Your task to perform on an android device: install app "Adobe Acrobat Reader: Edit PDF" Image 0: 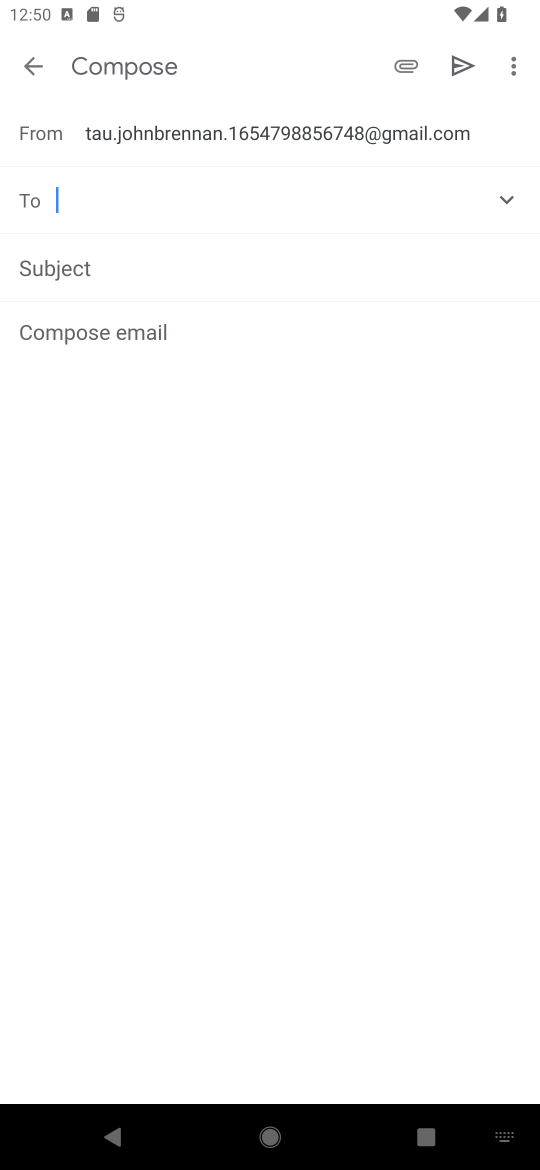
Step 0: press home button
Your task to perform on an android device: install app "Adobe Acrobat Reader: Edit PDF" Image 1: 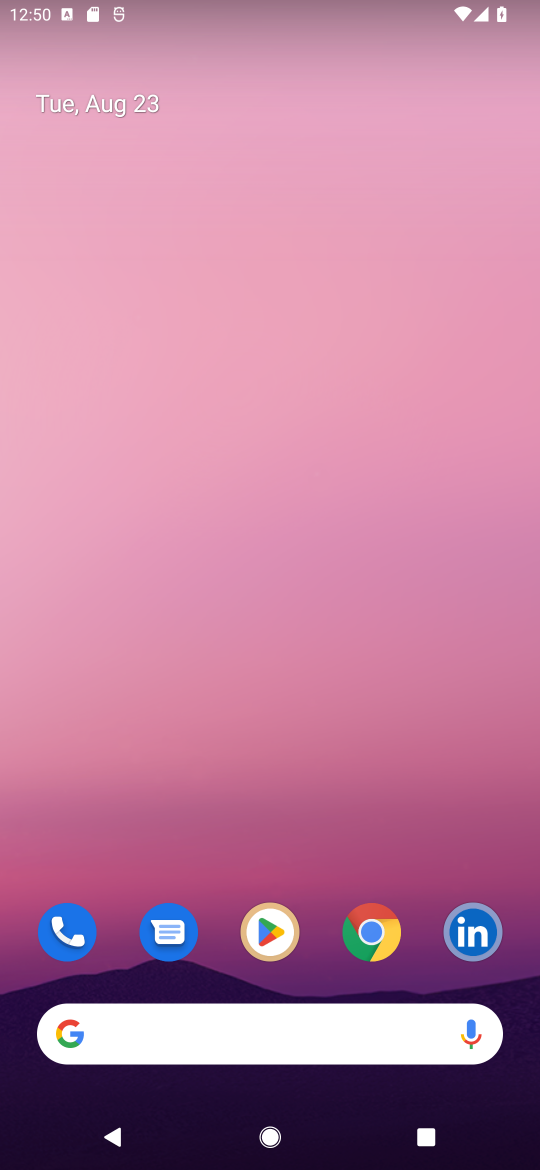
Step 1: click (267, 923)
Your task to perform on an android device: install app "Adobe Acrobat Reader: Edit PDF" Image 2: 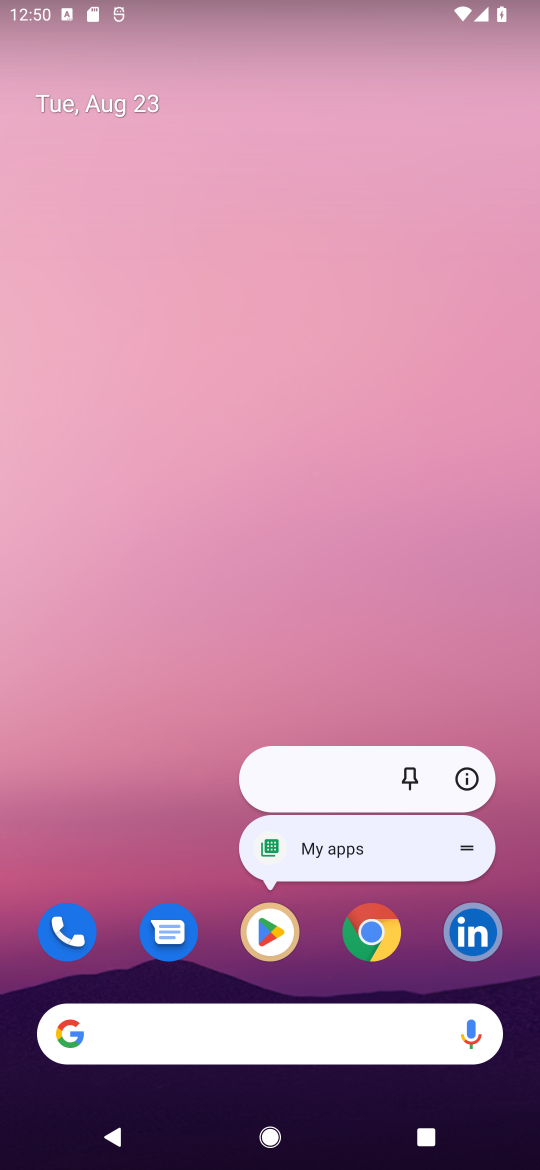
Step 2: click (276, 947)
Your task to perform on an android device: install app "Adobe Acrobat Reader: Edit PDF" Image 3: 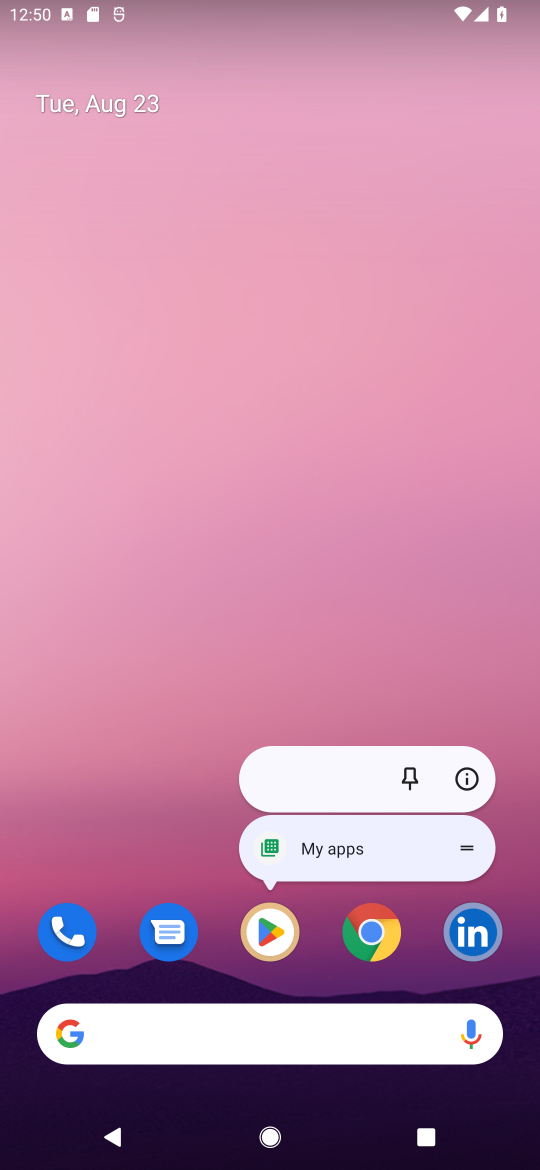
Step 3: click (280, 934)
Your task to perform on an android device: install app "Adobe Acrobat Reader: Edit PDF" Image 4: 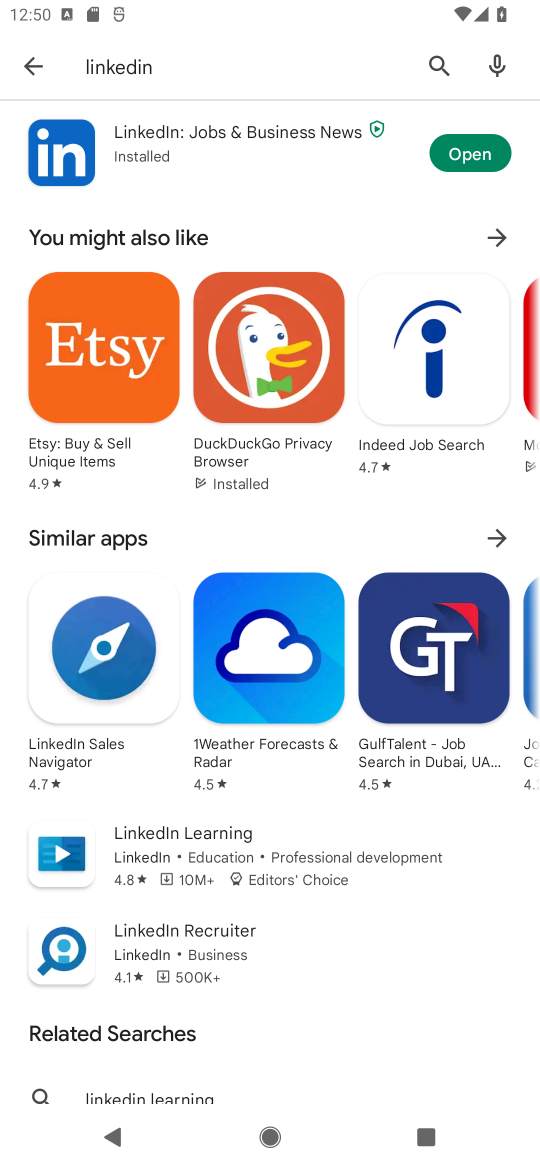
Step 4: click (443, 57)
Your task to perform on an android device: install app "Adobe Acrobat Reader: Edit PDF" Image 5: 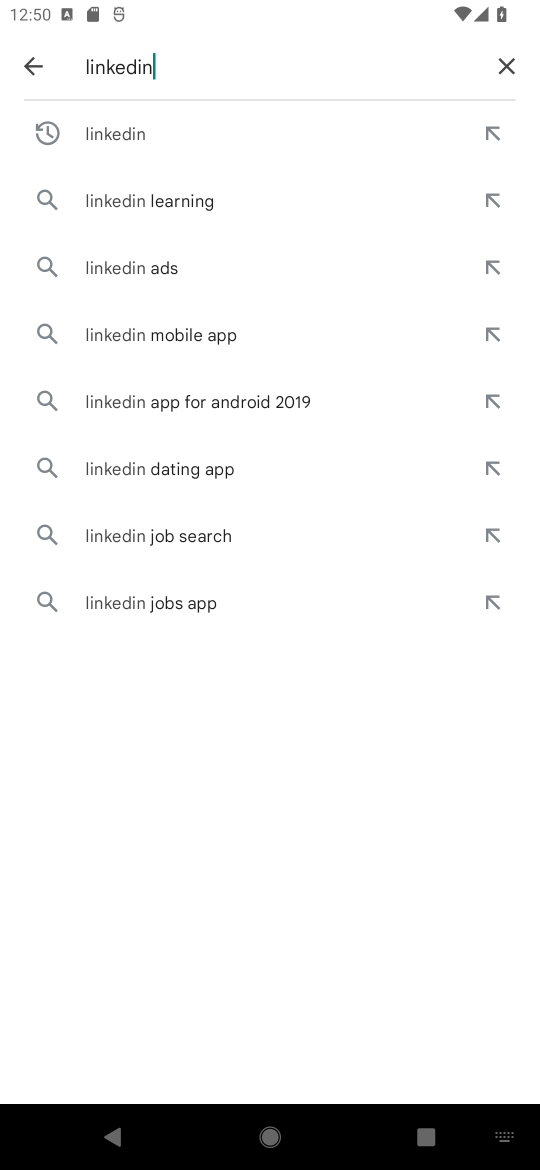
Step 5: click (500, 64)
Your task to perform on an android device: install app "Adobe Acrobat Reader: Edit PDF" Image 6: 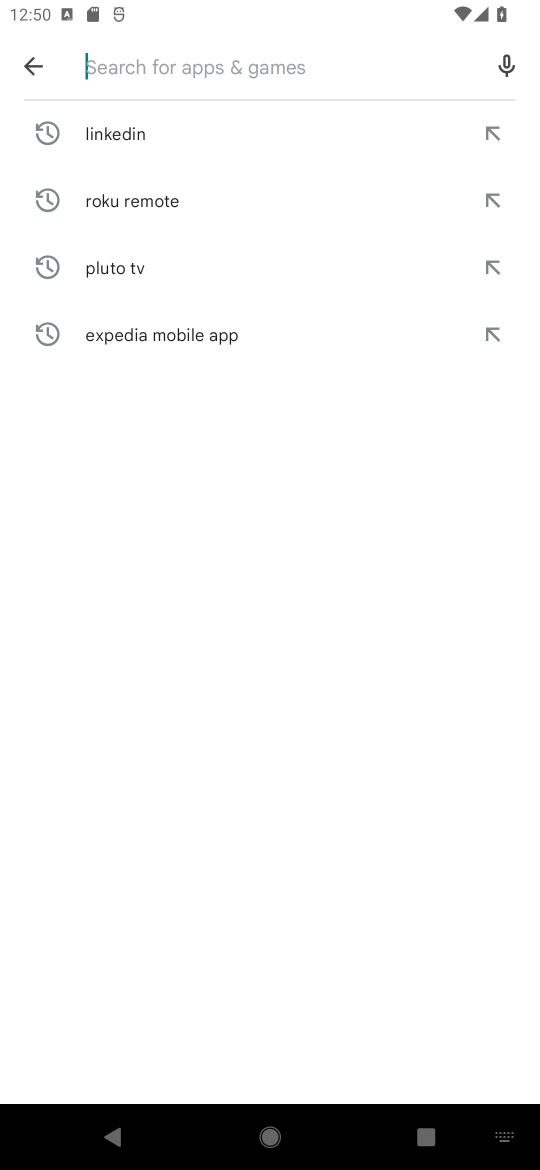
Step 6: click (126, 61)
Your task to perform on an android device: install app "Adobe Acrobat Reader: Edit PDF" Image 7: 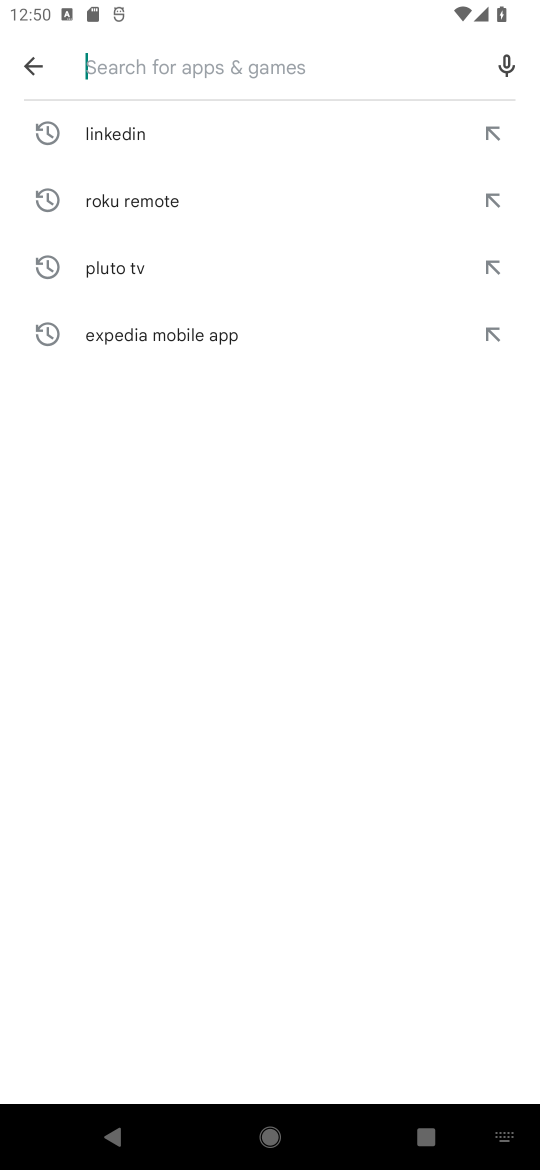
Step 7: type "Adobe Acrobat Reade"
Your task to perform on an android device: install app "Adobe Acrobat Reader: Edit PDF" Image 8: 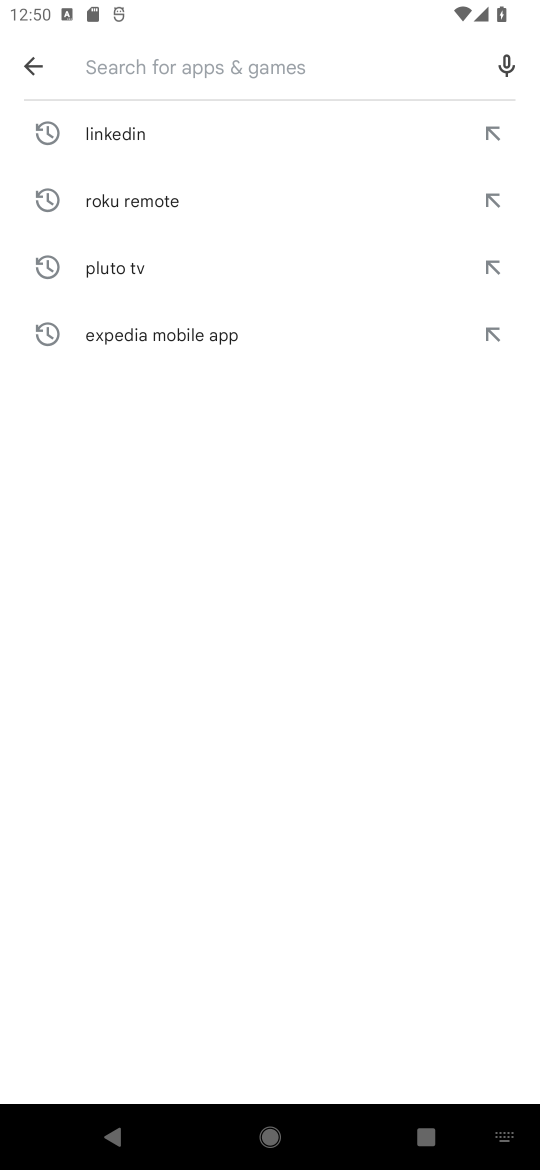
Step 8: click (186, 713)
Your task to perform on an android device: install app "Adobe Acrobat Reader: Edit PDF" Image 9: 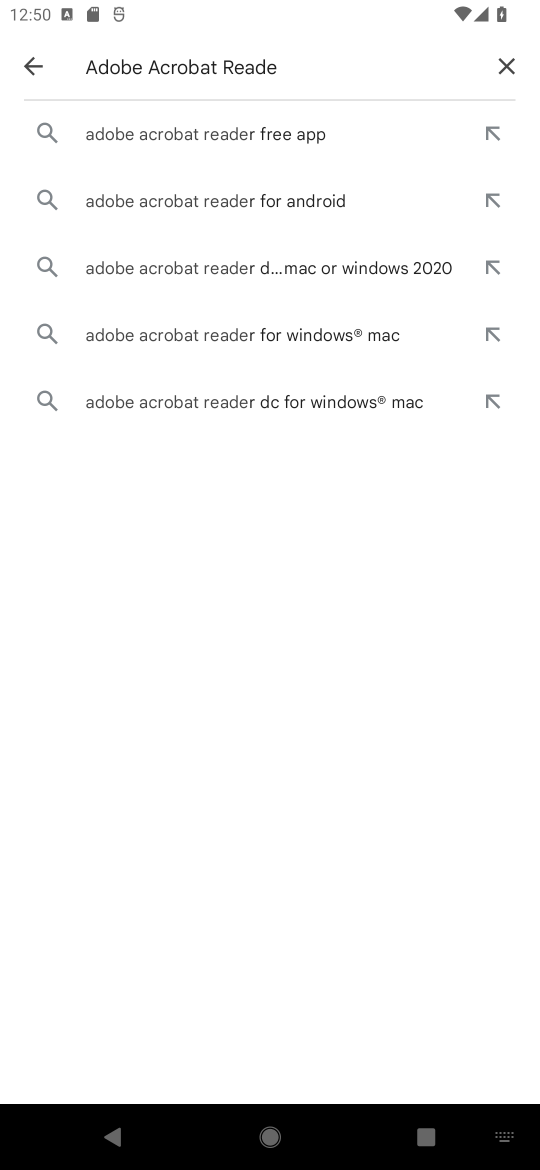
Step 9: click (293, 134)
Your task to perform on an android device: install app "Adobe Acrobat Reader: Edit PDF" Image 10: 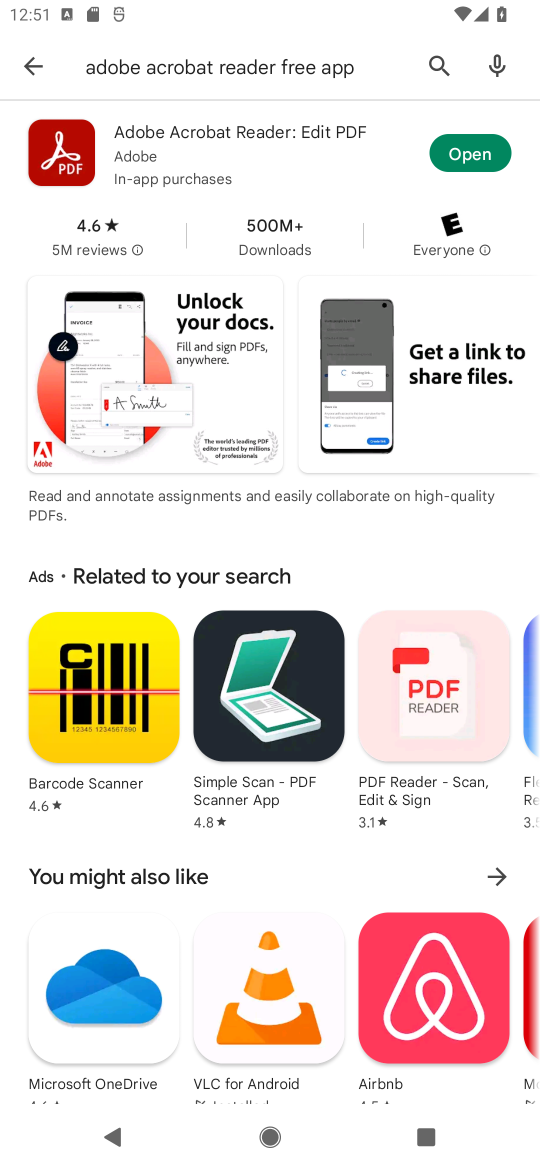
Step 10: press home button
Your task to perform on an android device: install app "Adobe Acrobat Reader: Edit PDF" Image 11: 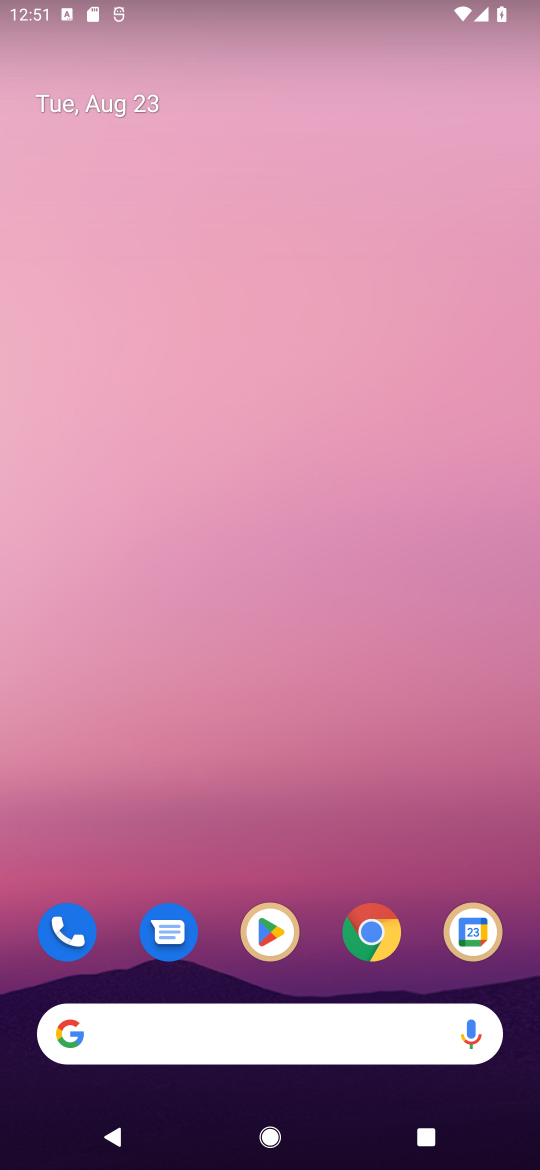
Step 11: click (261, 933)
Your task to perform on an android device: install app "Adobe Acrobat Reader: Edit PDF" Image 12: 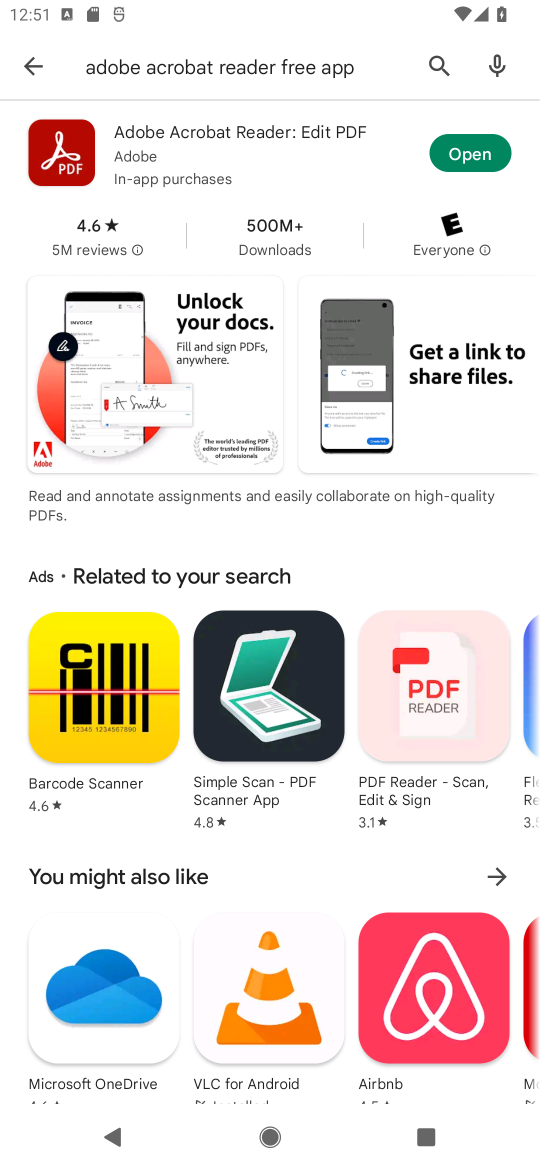
Step 12: click (431, 53)
Your task to perform on an android device: install app "Adobe Acrobat Reader: Edit PDF" Image 13: 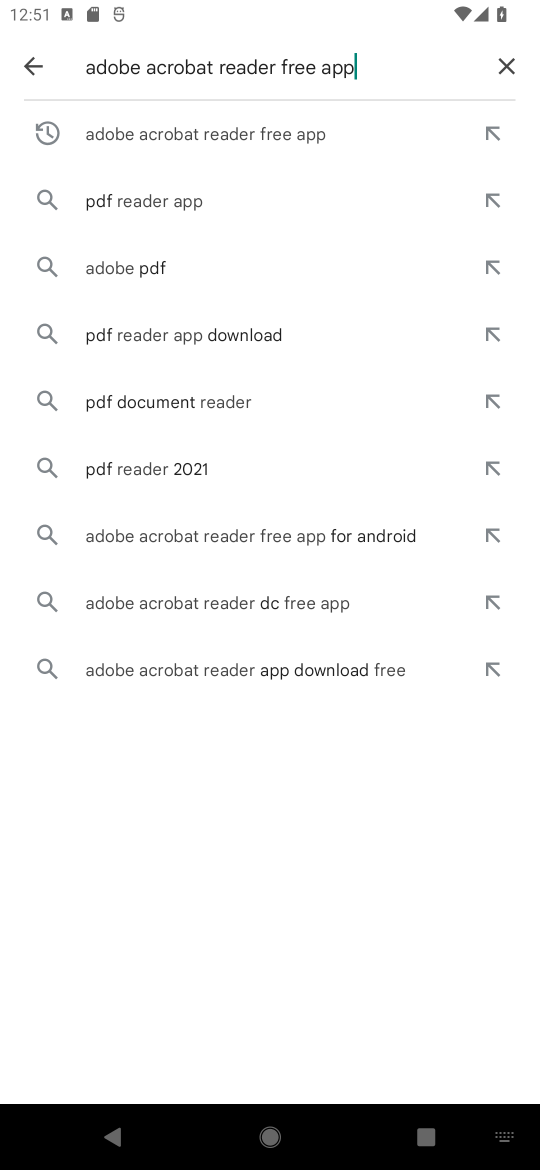
Step 13: click (222, 155)
Your task to perform on an android device: install app "Adobe Acrobat Reader: Edit PDF" Image 14: 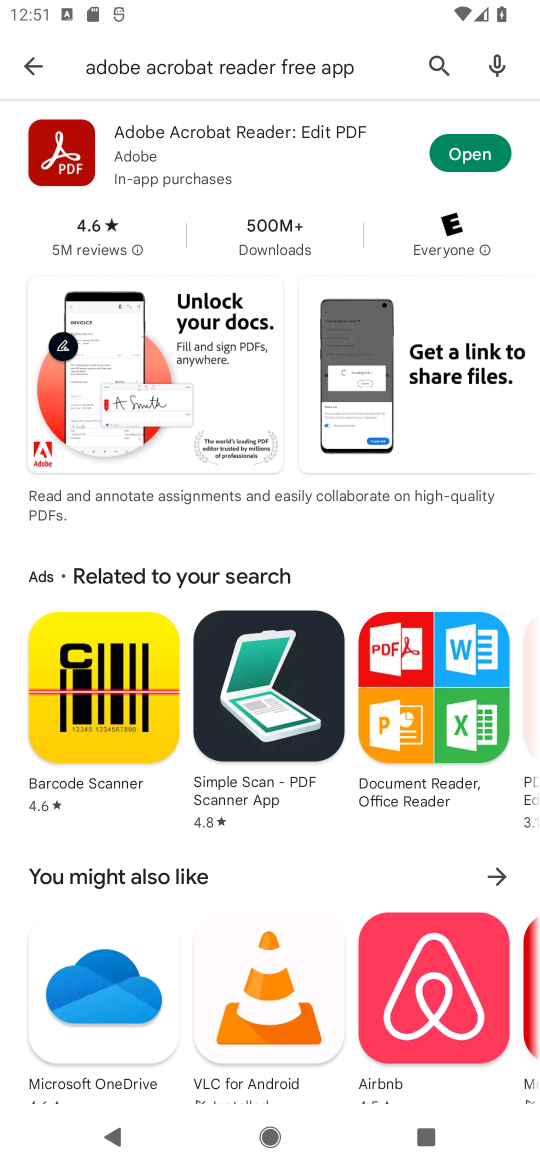
Step 14: task complete